Your task to perform on an android device: Open Google Maps Image 0: 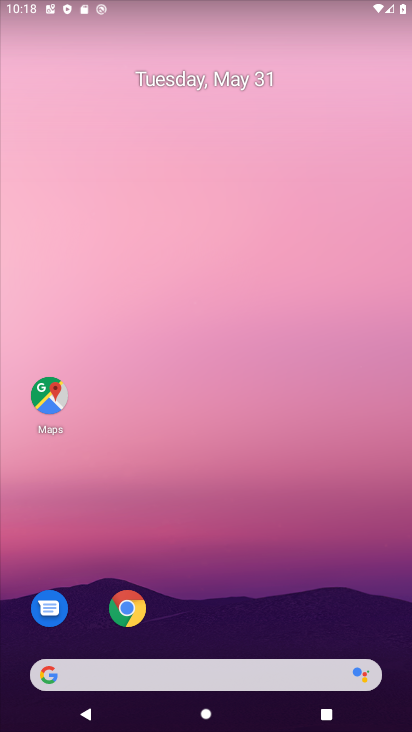
Step 0: drag from (198, 654) to (187, 18)
Your task to perform on an android device: Open Google Maps Image 1: 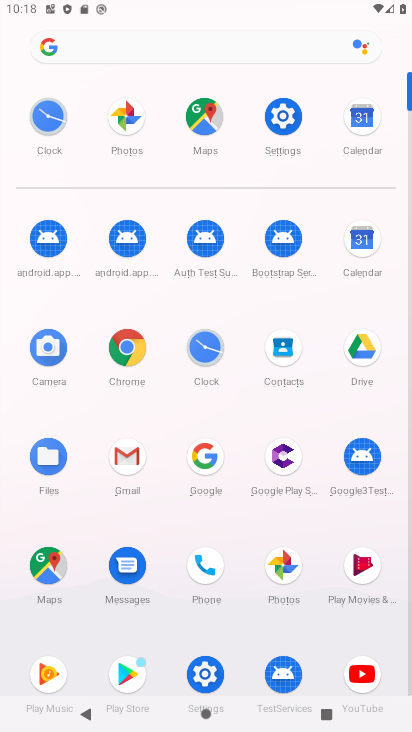
Step 1: click (39, 574)
Your task to perform on an android device: Open Google Maps Image 2: 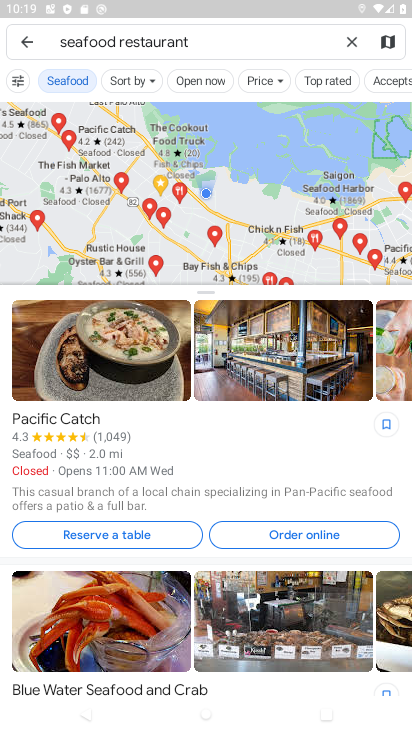
Step 2: task complete